Your task to perform on an android device: add a contact Image 0: 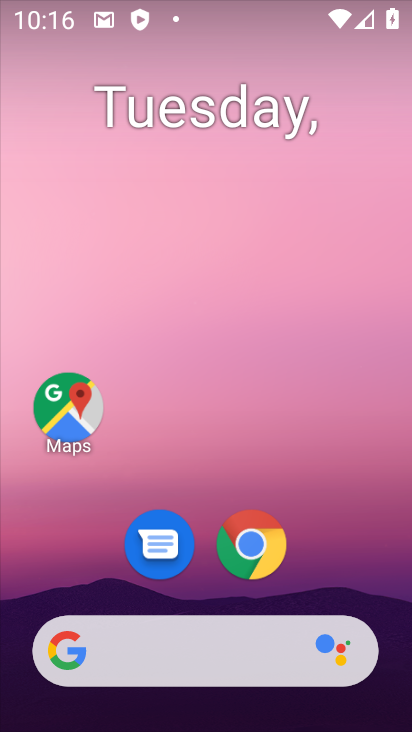
Step 0: drag from (406, 602) to (251, 149)
Your task to perform on an android device: add a contact Image 1: 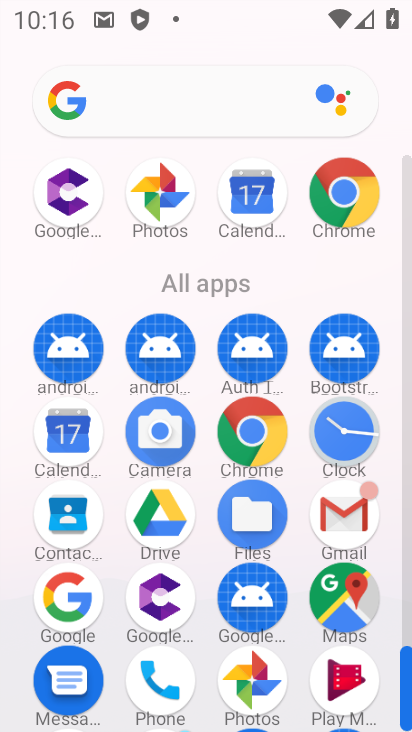
Step 1: click (62, 537)
Your task to perform on an android device: add a contact Image 2: 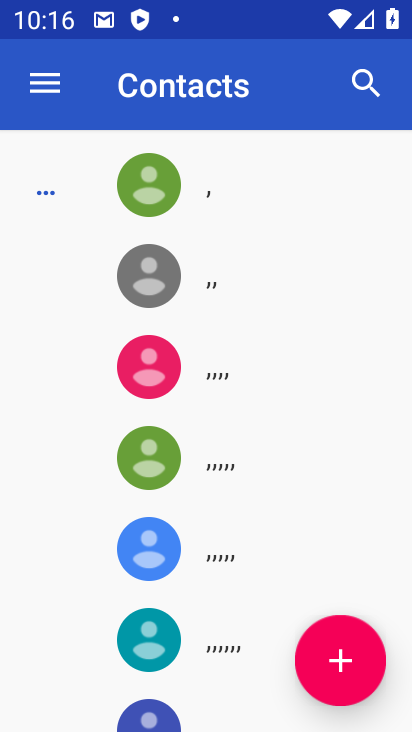
Step 2: click (338, 676)
Your task to perform on an android device: add a contact Image 3: 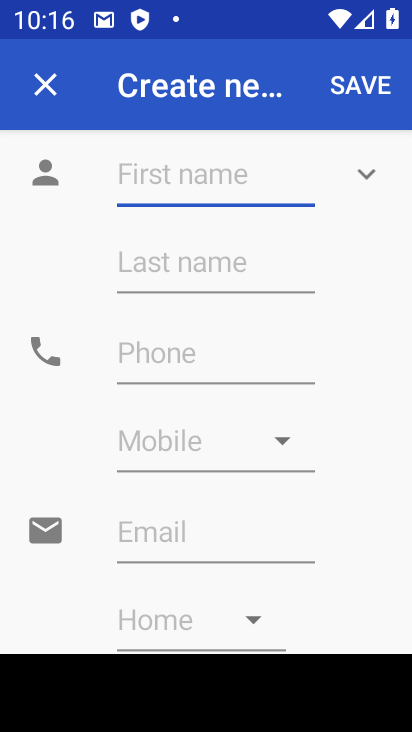
Step 3: click (195, 202)
Your task to perform on an android device: add a contact Image 4: 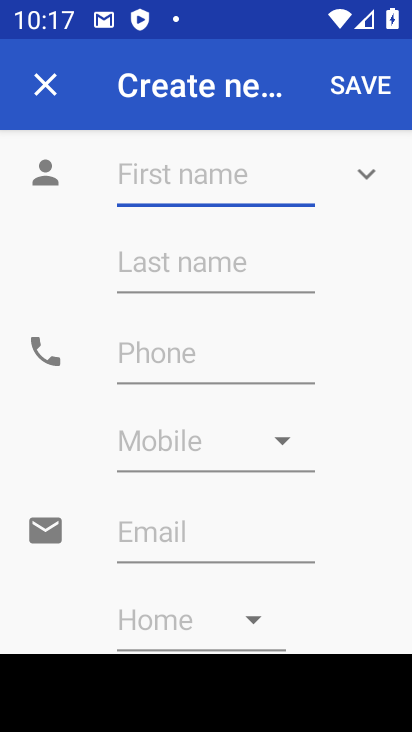
Step 4: type "bhbk"
Your task to perform on an android device: add a contact Image 5: 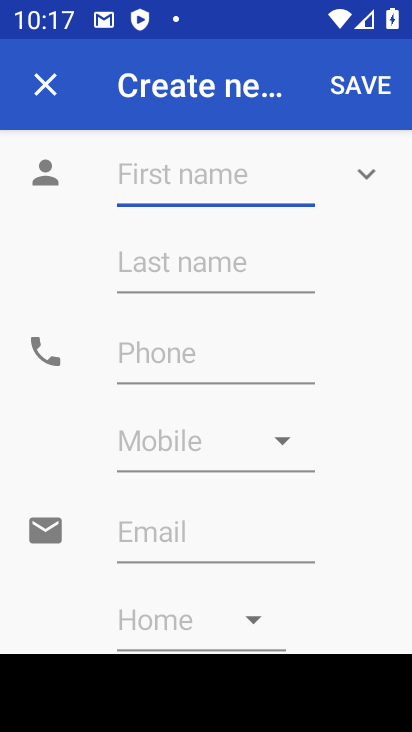
Step 5: click (263, 358)
Your task to perform on an android device: add a contact Image 6: 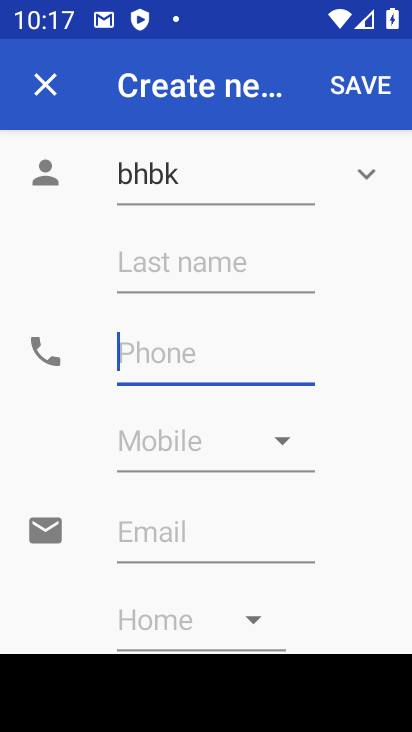
Step 6: type "8768768787"
Your task to perform on an android device: add a contact Image 7: 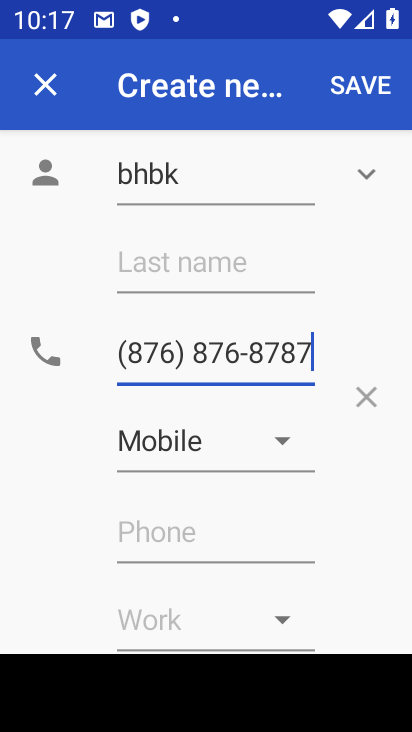
Step 7: click (378, 91)
Your task to perform on an android device: add a contact Image 8: 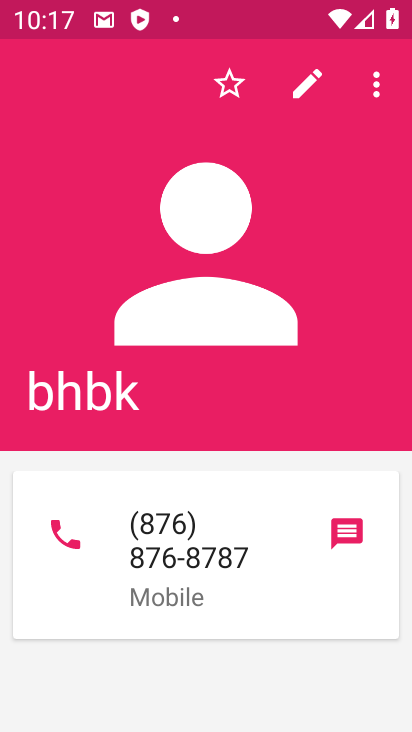
Step 8: task complete